Your task to perform on an android device: turn on wifi Image 0: 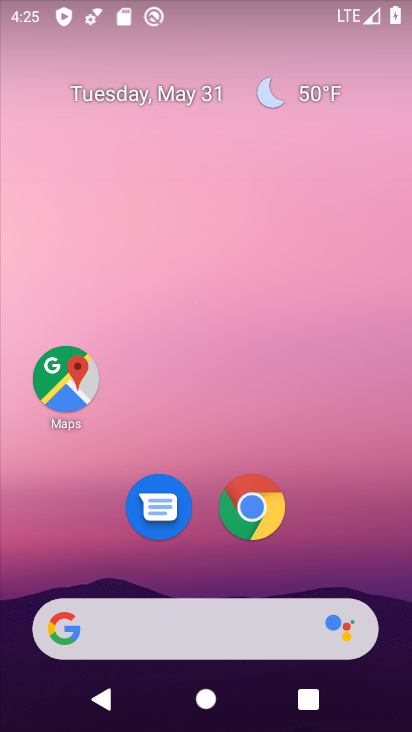
Step 0: drag from (291, 417) to (282, 26)
Your task to perform on an android device: turn on wifi Image 1: 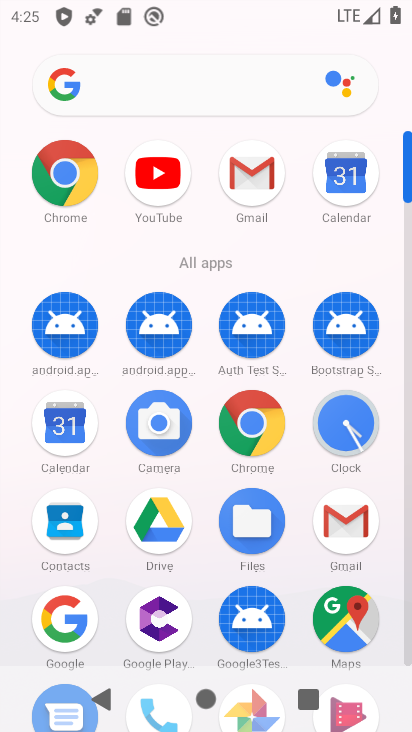
Step 1: drag from (216, 357) to (188, 1)
Your task to perform on an android device: turn on wifi Image 2: 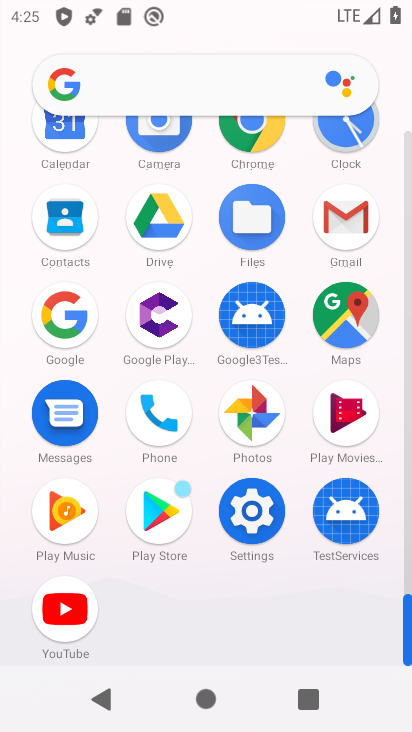
Step 2: click (250, 518)
Your task to perform on an android device: turn on wifi Image 3: 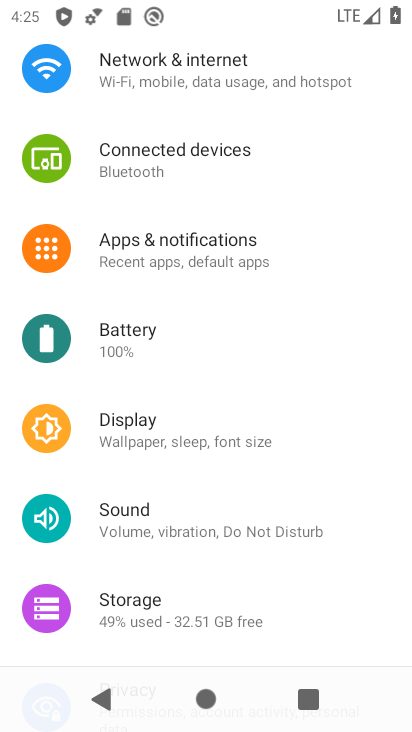
Step 3: click (282, 69)
Your task to perform on an android device: turn on wifi Image 4: 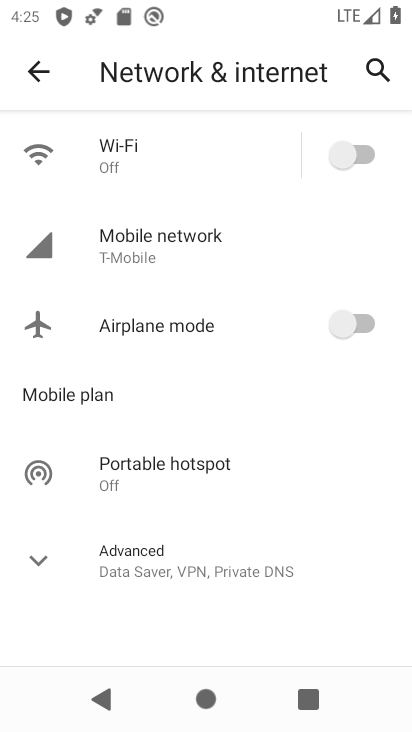
Step 4: click (363, 146)
Your task to perform on an android device: turn on wifi Image 5: 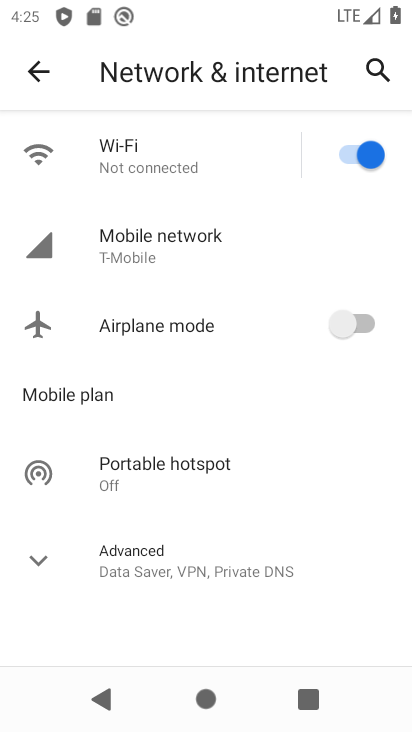
Step 5: task complete